Your task to perform on an android device: Is it going to rain today? Image 0: 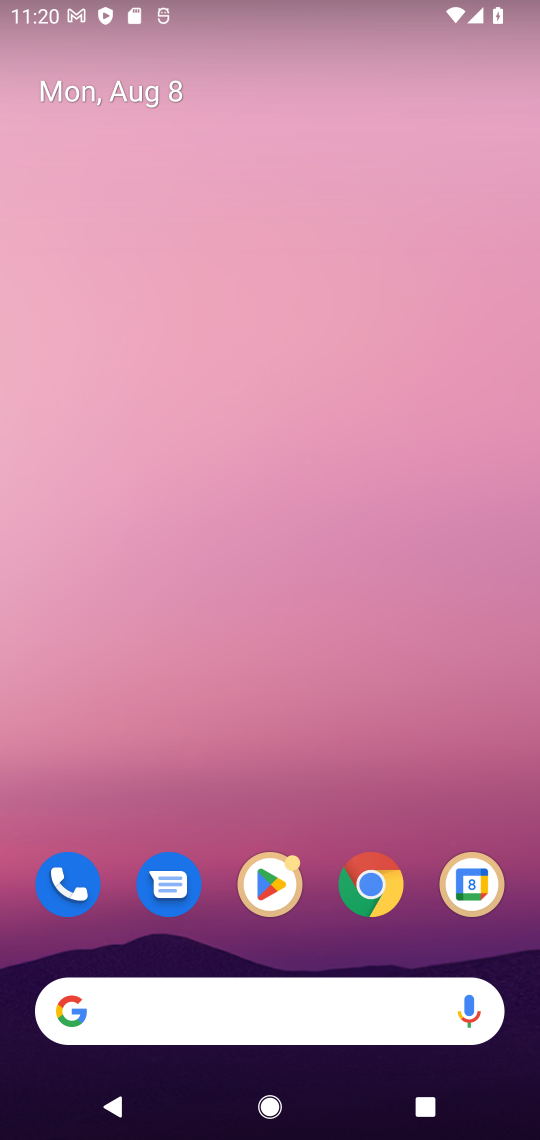
Step 0: drag from (232, 964) to (244, 135)
Your task to perform on an android device: Is it going to rain today? Image 1: 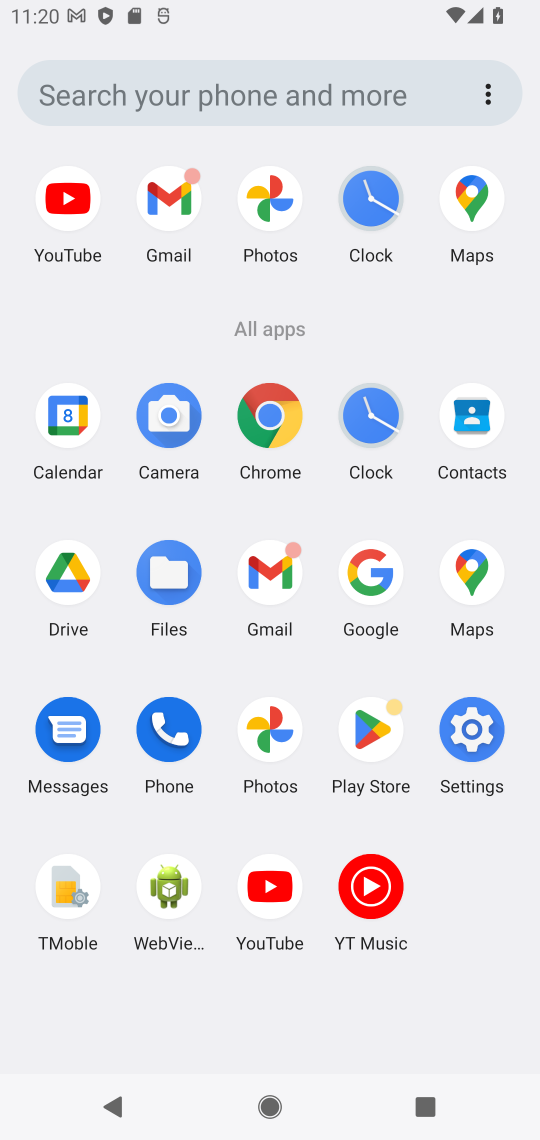
Step 1: click (379, 584)
Your task to perform on an android device: Is it going to rain today? Image 2: 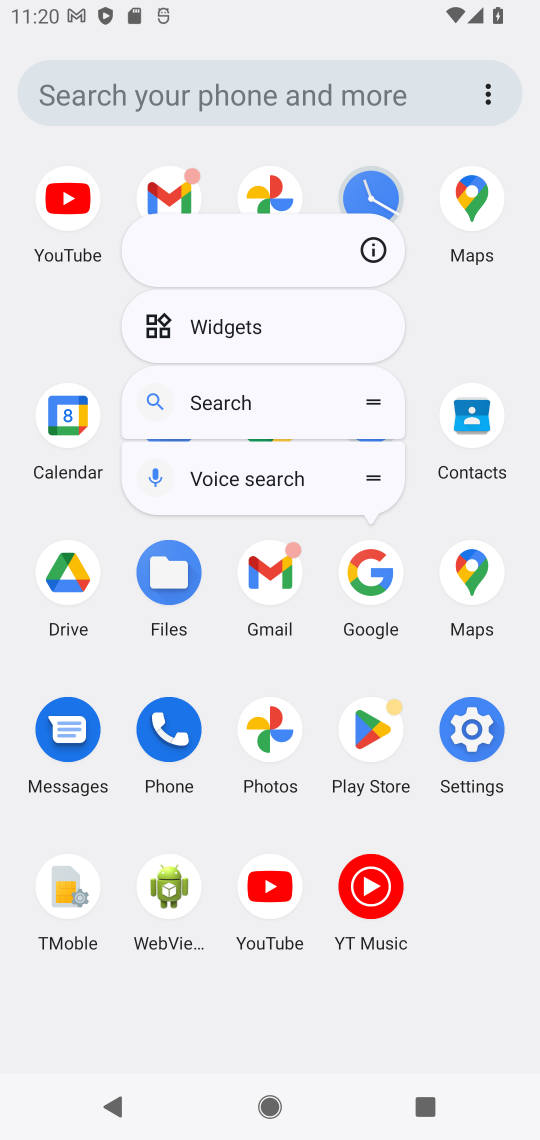
Step 2: click (381, 601)
Your task to perform on an android device: Is it going to rain today? Image 3: 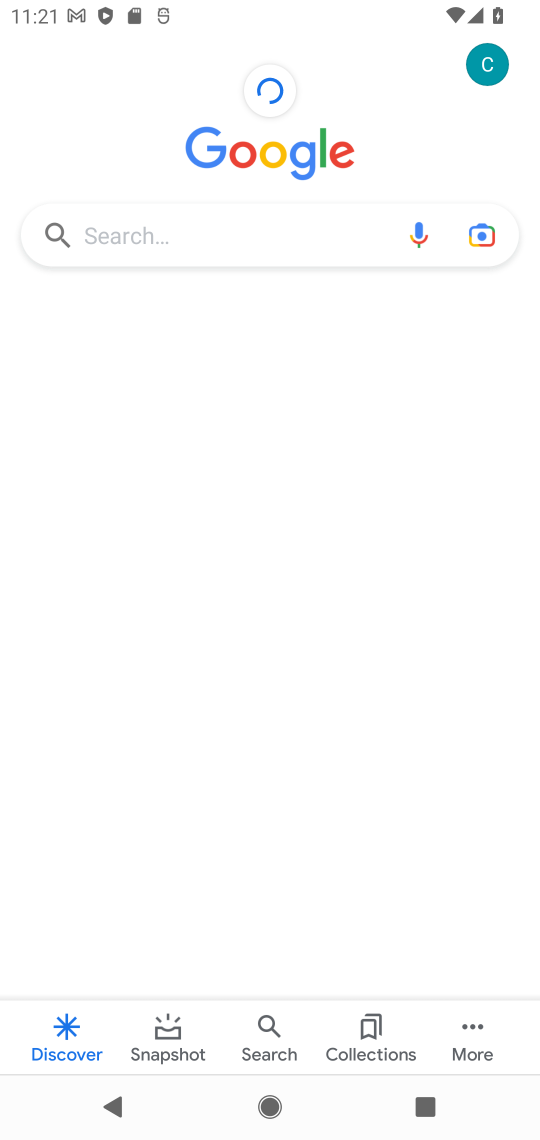
Step 3: click (250, 231)
Your task to perform on an android device: Is it going to rain today? Image 4: 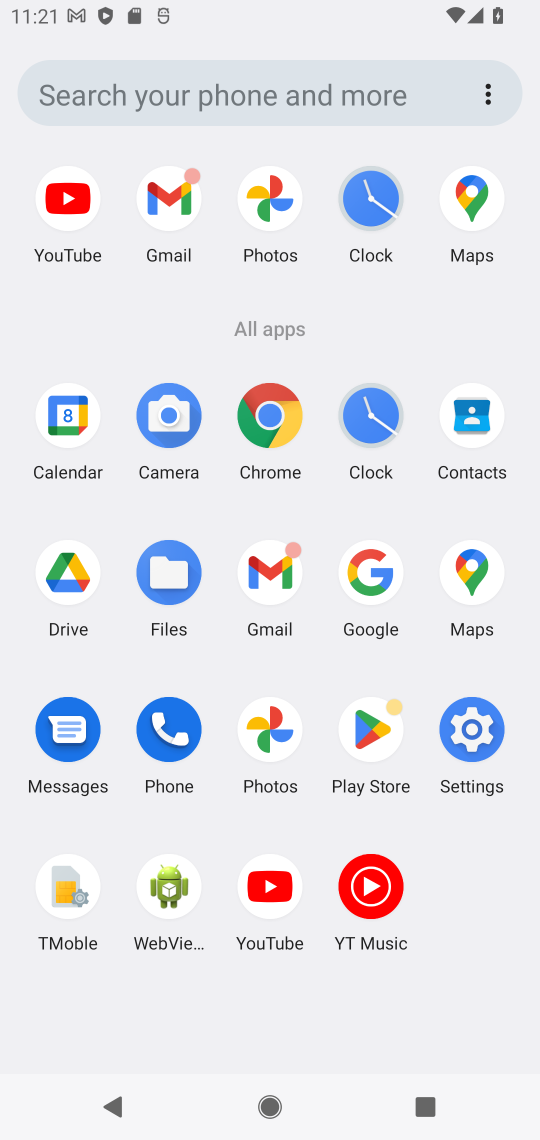
Step 4: type "weather"
Your task to perform on an android device: Is it going to rain today? Image 5: 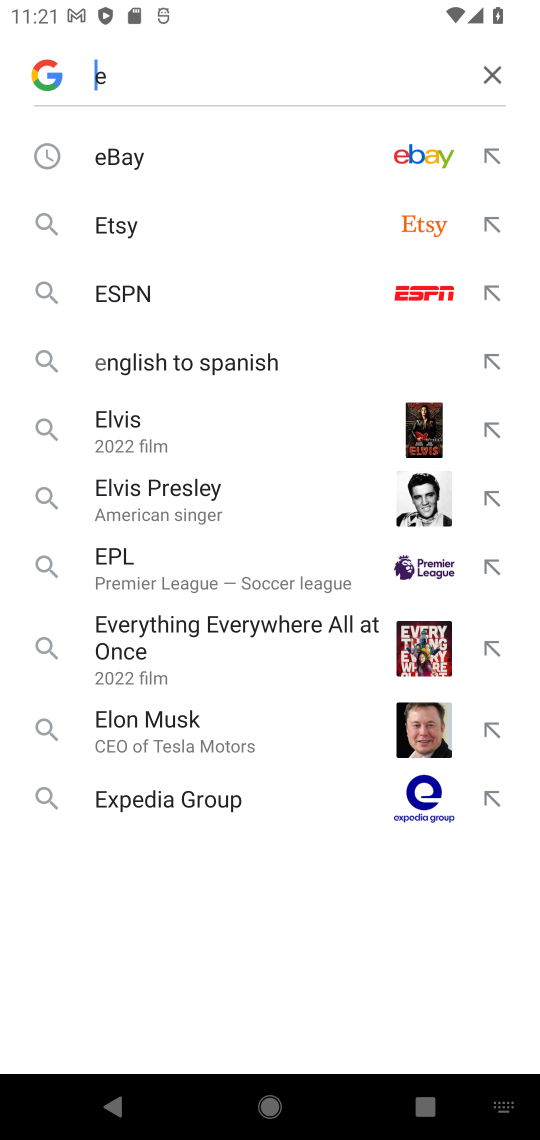
Step 5: click (496, 71)
Your task to perform on an android device: Is it going to rain today? Image 6: 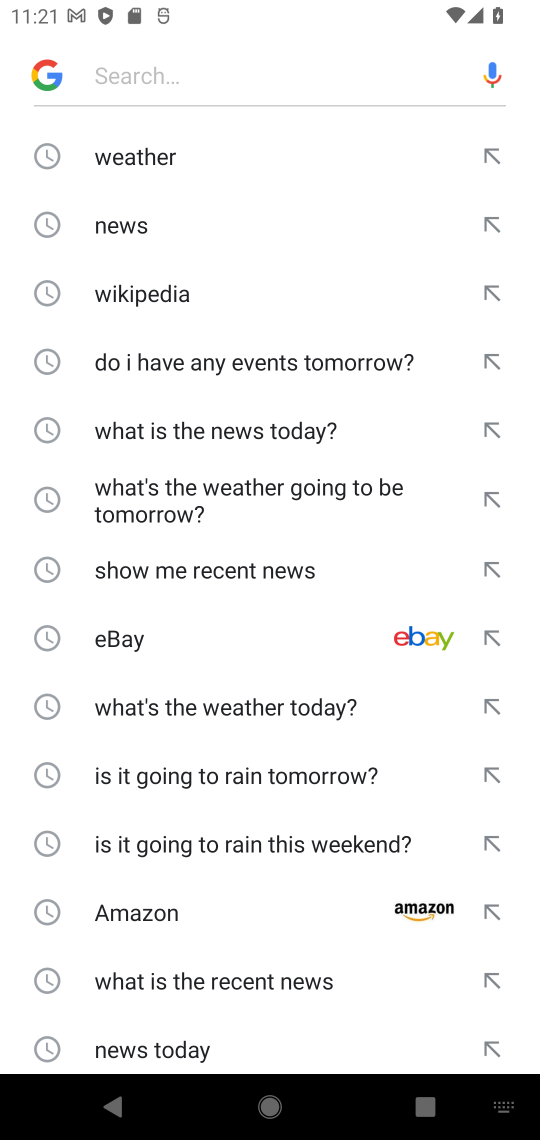
Step 6: type "weather"
Your task to perform on an android device: Is it going to rain today? Image 7: 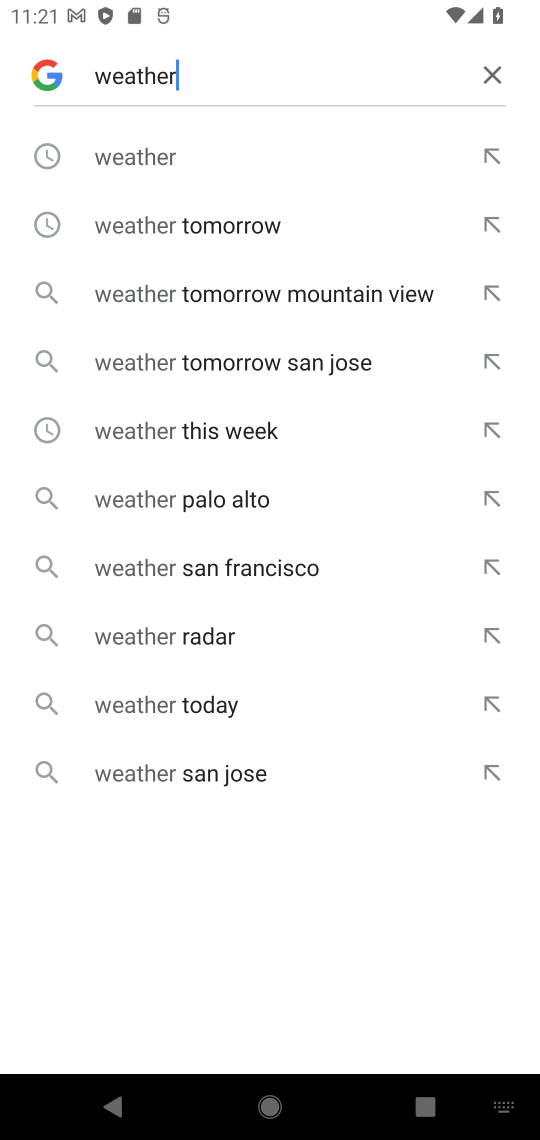
Step 7: click (174, 141)
Your task to perform on an android device: Is it going to rain today? Image 8: 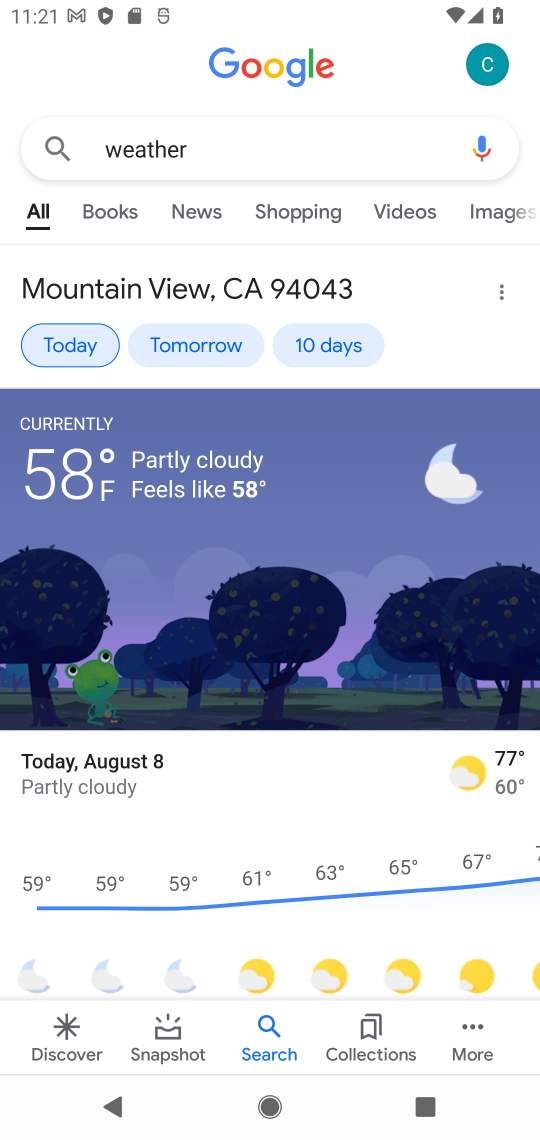
Step 8: task complete